Your task to perform on an android device: Go to wifi settings Image 0: 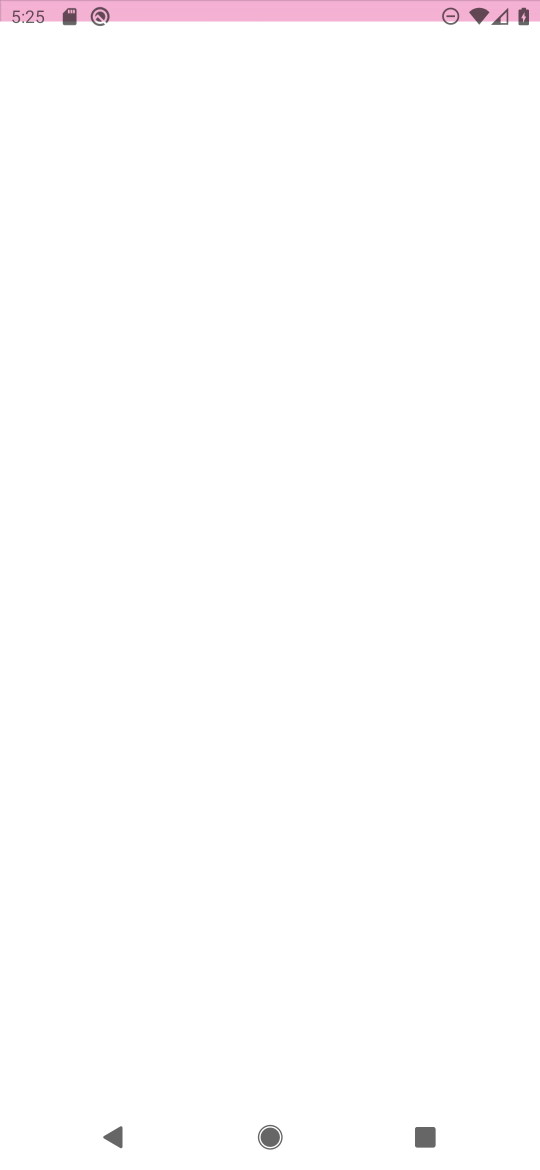
Step 0: press home button
Your task to perform on an android device: Go to wifi settings Image 1: 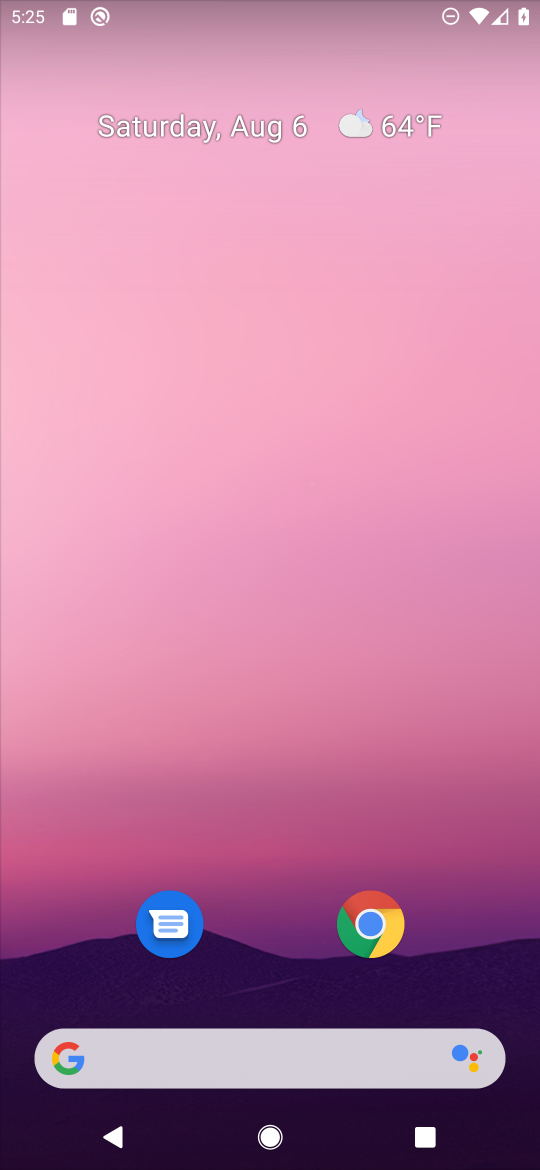
Step 1: drag from (256, 919) to (236, 256)
Your task to perform on an android device: Go to wifi settings Image 2: 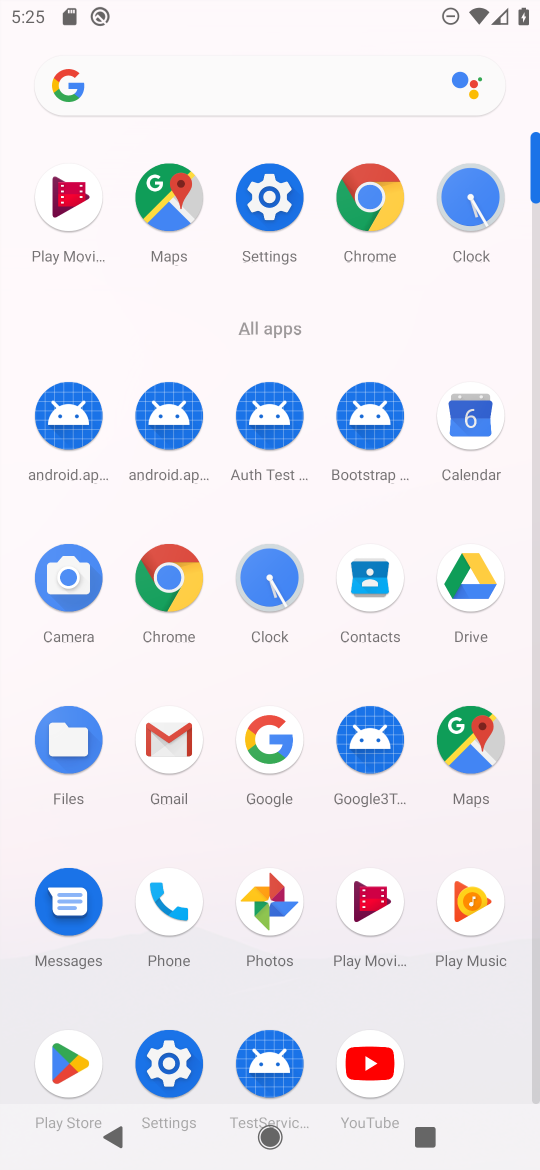
Step 2: click (266, 192)
Your task to perform on an android device: Go to wifi settings Image 3: 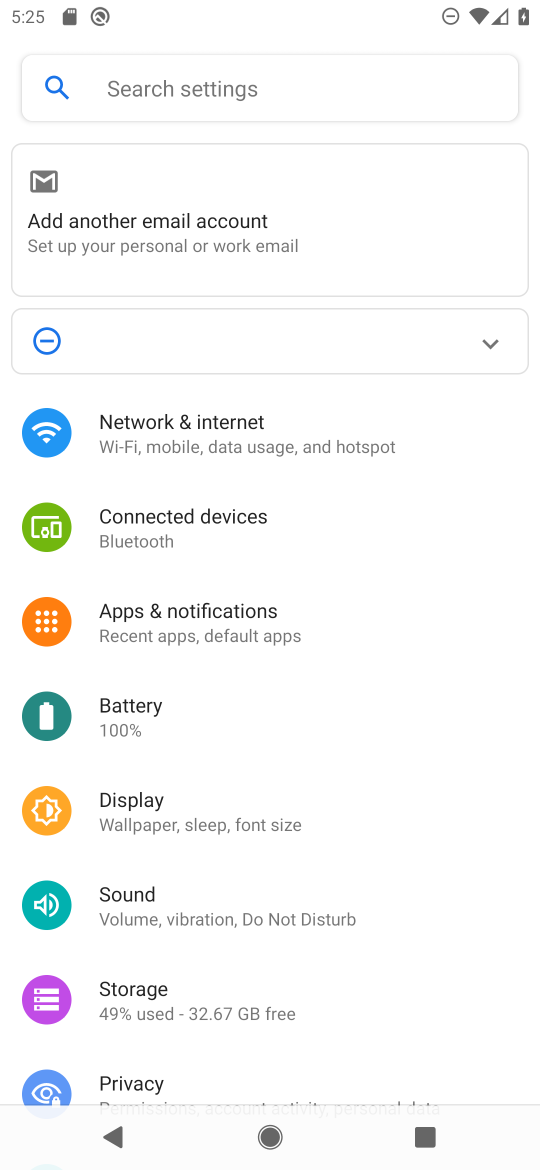
Step 3: click (213, 420)
Your task to perform on an android device: Go to wifi settings Image 4: 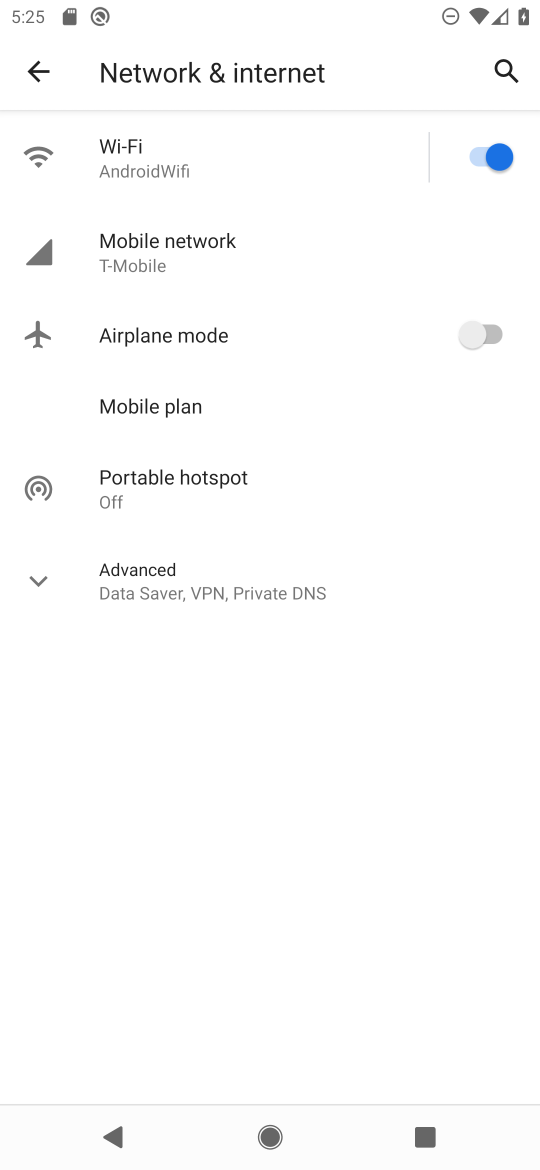
Step 4: click (159, 149)
Your task to perform on an android device: Go to wifi settings Image 5: 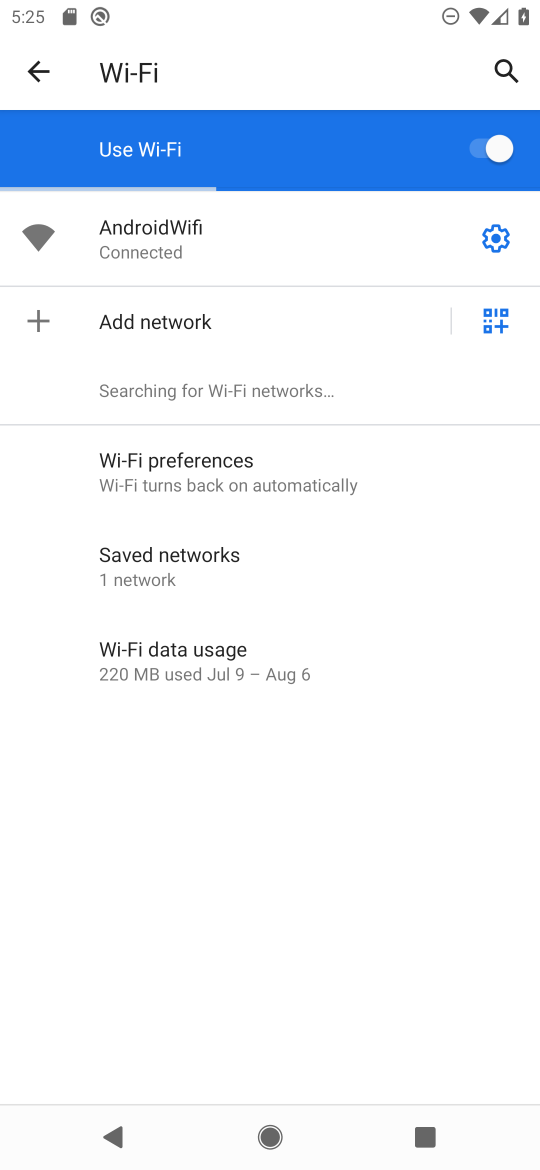
Step 5: task complete